Your task to perform on an android device: change notification settings in the gmail app Image 0: 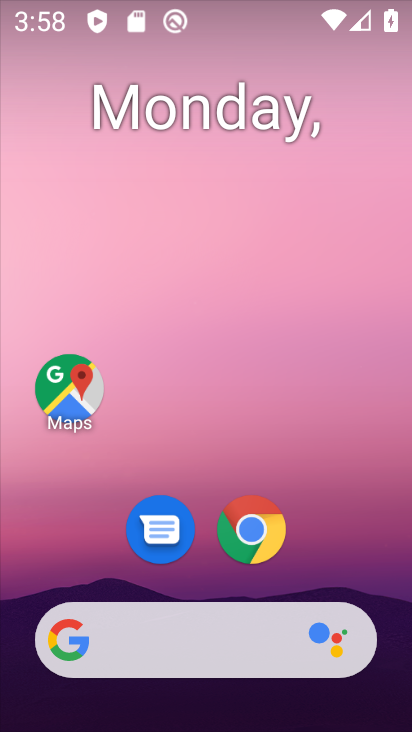
Step 0: drag from (198, 585) to (312, 1)
Your task to perform on an android device: change notification settings in the gmail app Image 1: 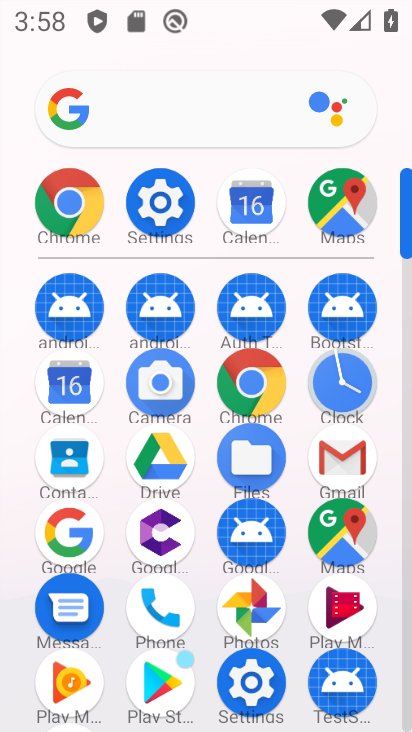
Step 1: click (350, 460)
Your task to perform on an android device: change notification settings in the gmail app Image 2: 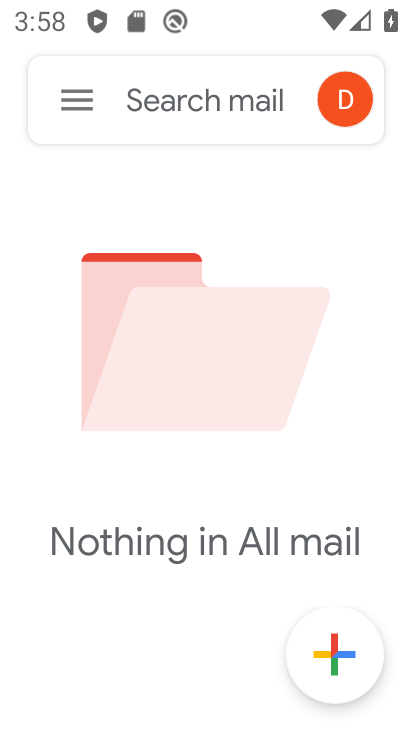
Step 2: click (76, 97)
Your task to perform on an android device: change notification settings in the gmail app Image 3: 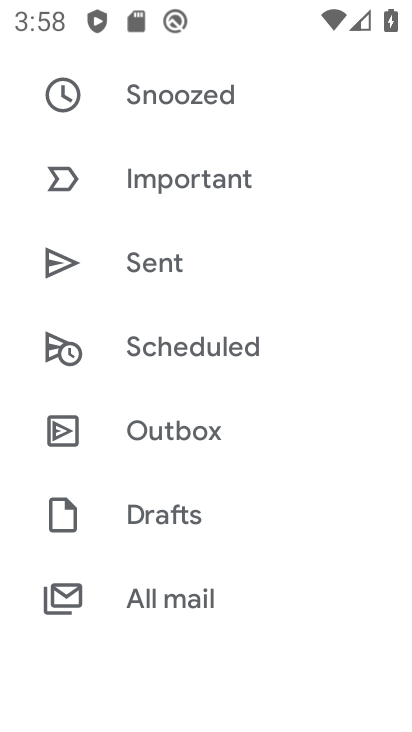
Step 3: drag from (137, 594) to (234, 44)
Your task to perform on an android device: change notification settings in the gmail app Image 4: 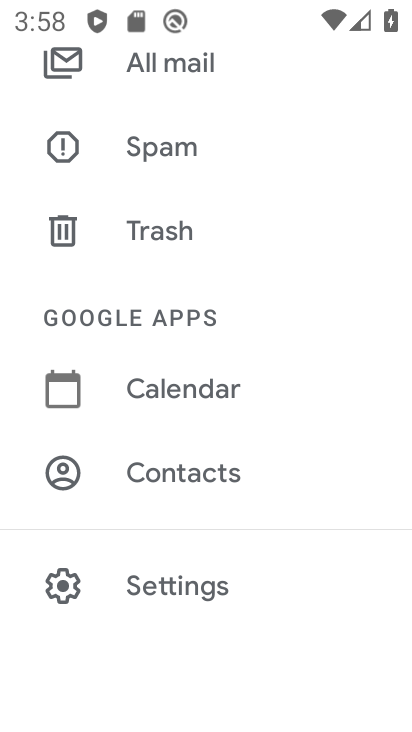
Step 4: click (208, 588)
Your task to perform on an android device: change notification settings in the gmail app Image 5: 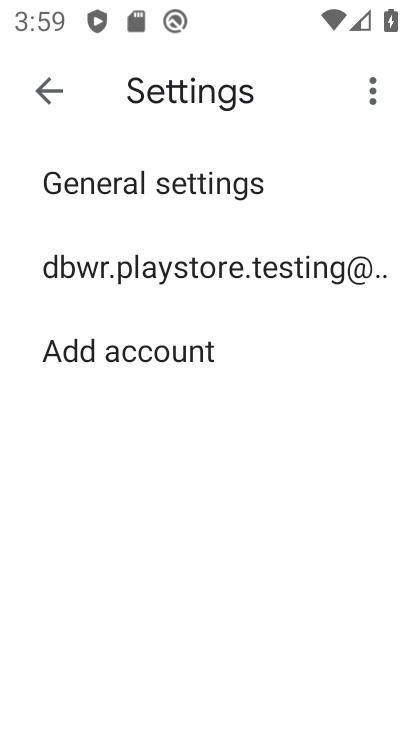
Step 5: click (200, 161)
Your task to perform on an android device: change notification settings in the gmail app Image 6: 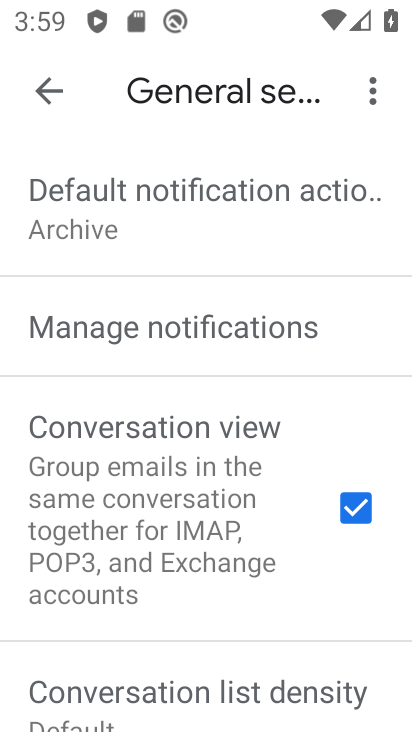
Step 6: click (273, 346)
Your task to perform on an android device: change notification settings in the gmail app Image 7: 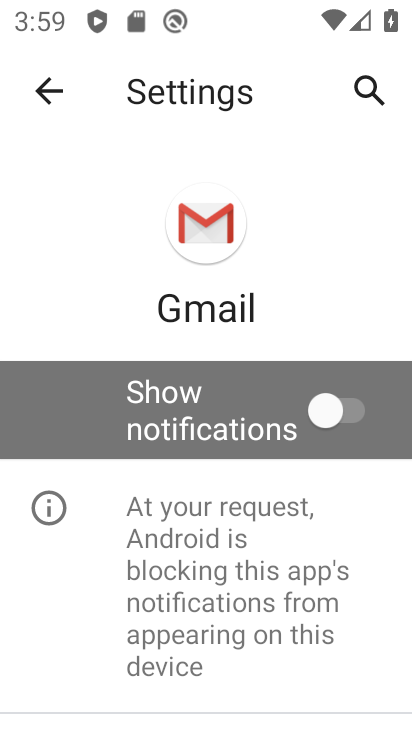
Step 7: click (360, 419)
Your task to perform on an android device: change notification settings in the gmail app Image 8: 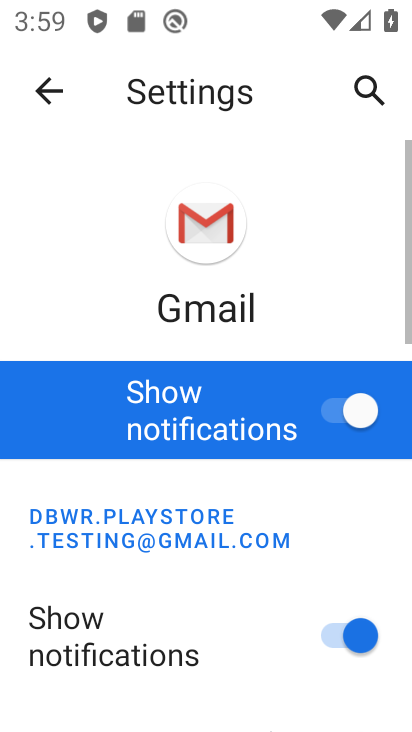
Step 8: task complete